Your task to perform on an android device: snooze an email in the gmail app Image 0: 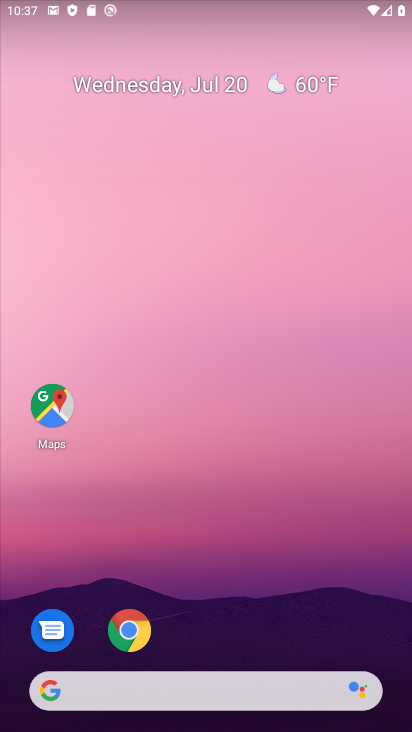
Step 0: drag from (172, 671) to (149, 45)
Your task to perform on an android device: snooze an email in the gmail app Image 1: 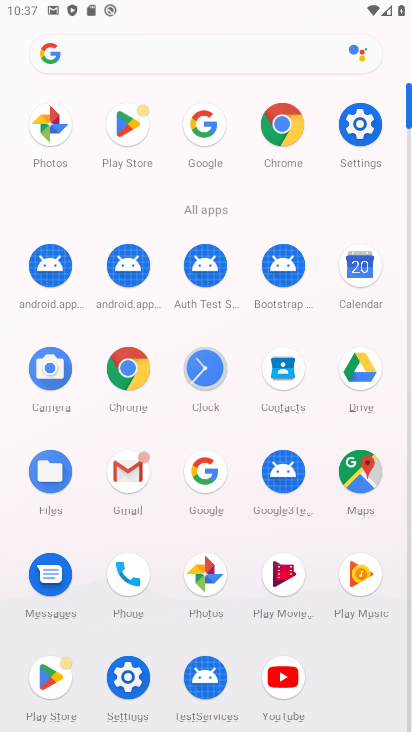
Step 1: click (125, 466)
Your task to perform on an android device: snooze an email in the gmail app Image 2: 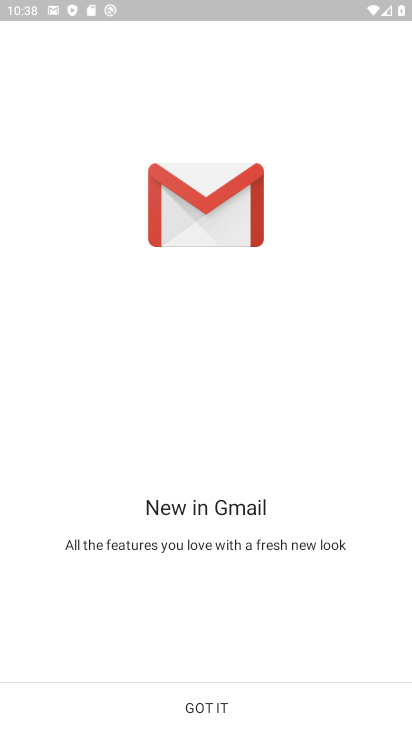
Step 2: click (212, 709)
Your task to perform on an android device: snooze an email in the gmail app Image 3: 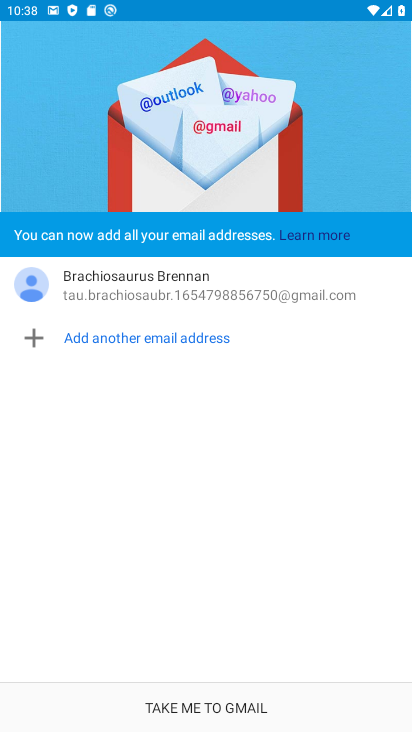
Step 3: click (212, 707)
Your task to perform on an android device: snooze an email in the gmail app Image 4: 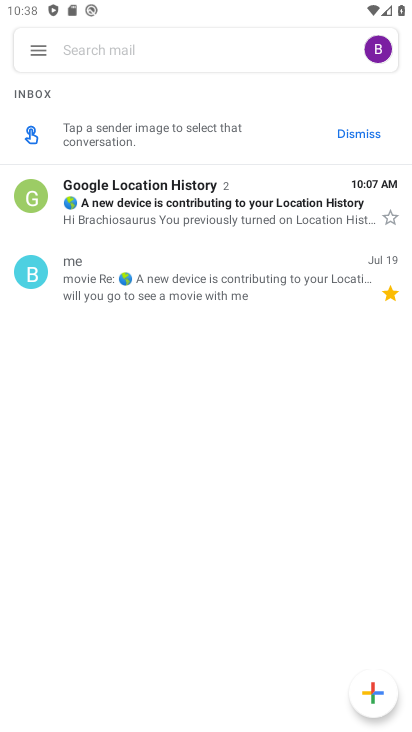
Step 4: click (206, 221)
Your task to perform on an android device: snooze an email in the gmail app Image 5: 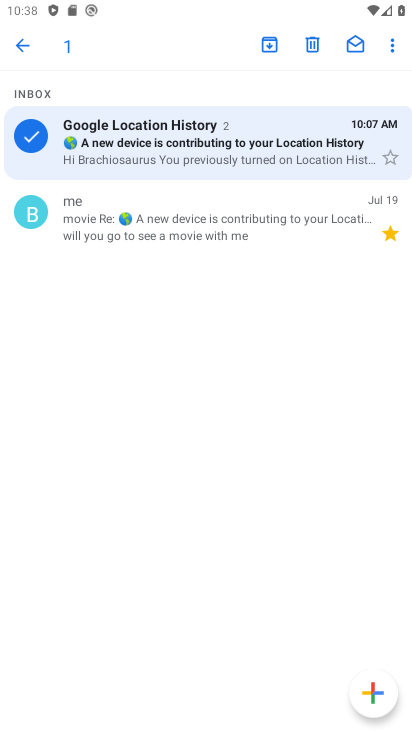
Step 5: click (385, 43)
Your task to perform on an android device: snooze an email in the gmail app Image 6: 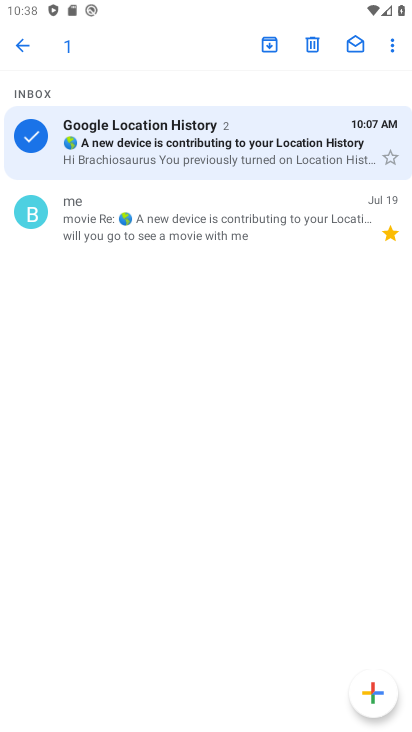
Step 6: click (388, 48)
Your task to perform on an android device: snooze an email in the gmail app Image 7: 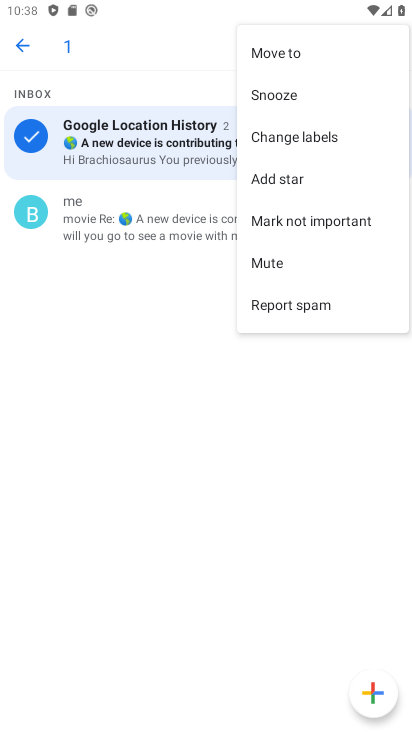
Step 7: click (292, 93)
Your task to perform on an android device: snooze an email in the gmail app Image 8: 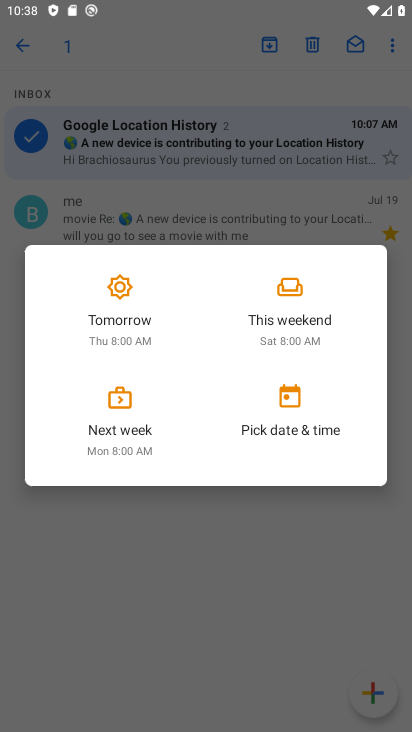
Step 8: click (128, 311)
Your task to perform on an android device: snooze an email in the gmail app Image 9: 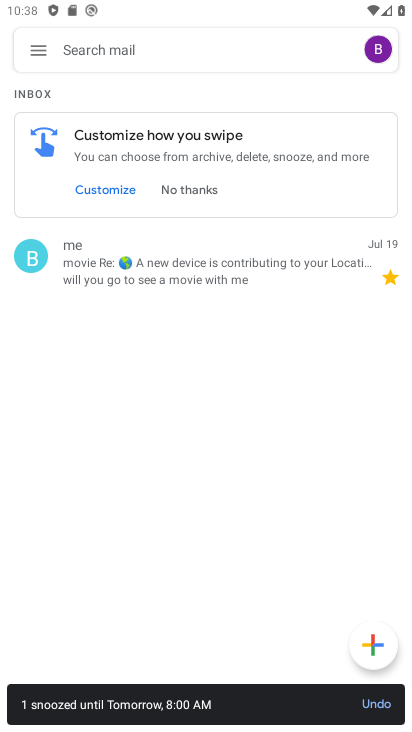
Step 9: task complete